Your task to perform on an android device: Open internet settings Image 0: 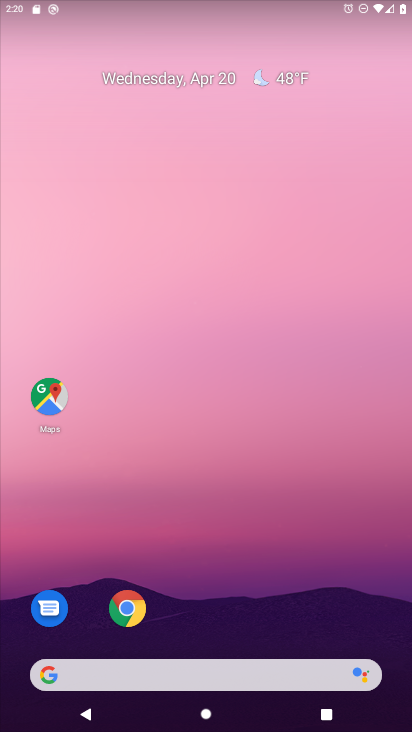
Step 0: drag from (291, 612) to (245, 111)
Your task to perform on an android device: Open internet settings Image 1: 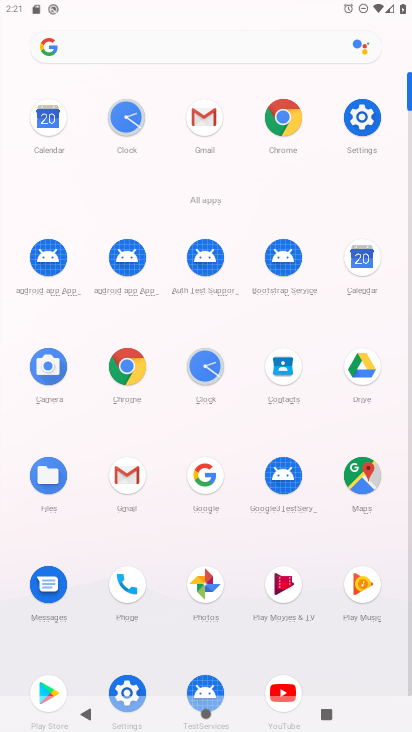
Step 1: click (359, 133)
Your task to perform on an android device: Open internet settings Image 2: 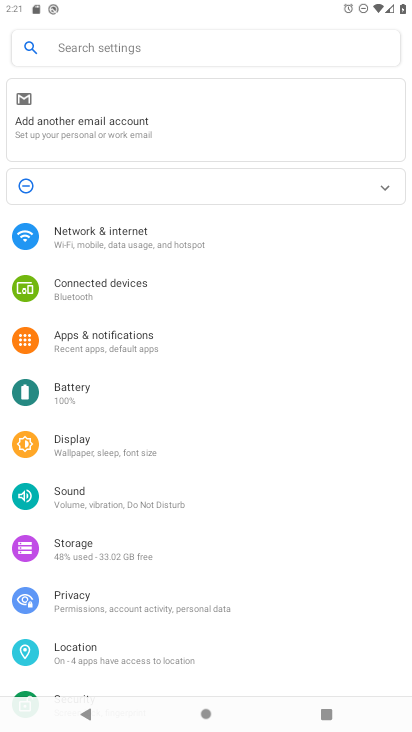
Step 2: click (133, 266)
Your task to perform on an android device: Open internet settings Image 3: 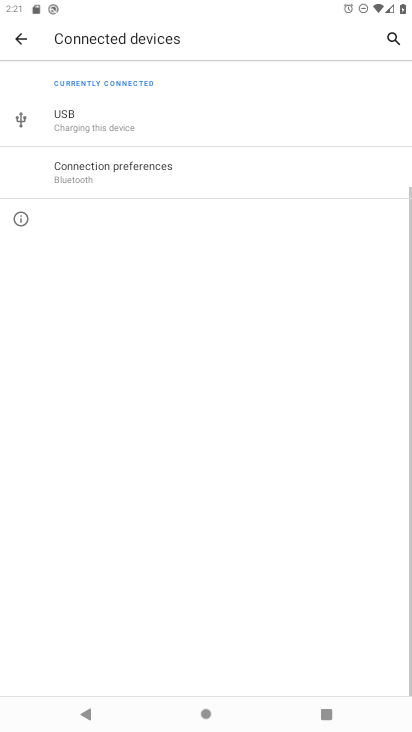
Step 3: click (97, 729)
Your task to perform on an android device: Open internet settings Image 4: 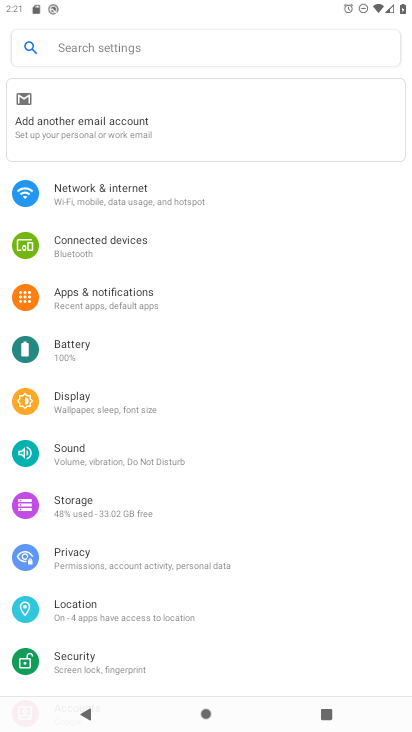
Step 4: click (190, 184)
Your task to perform on an android device: Open internet settings Image 5: 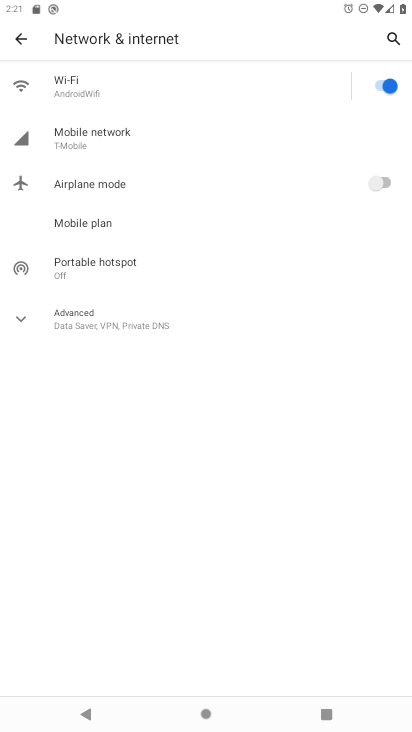
Step 5: task complete